Your task to perform on an android device: add a contact Image 0: 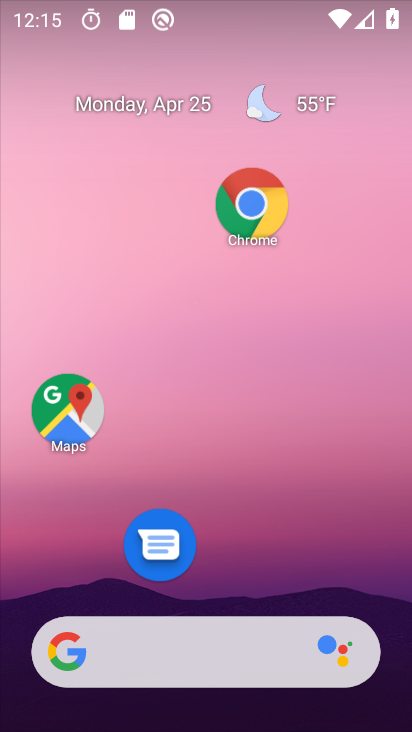
Step 0: drag from (291, 659) to (393, 260)
Your task to perform on an android device: add a contact Image 1: 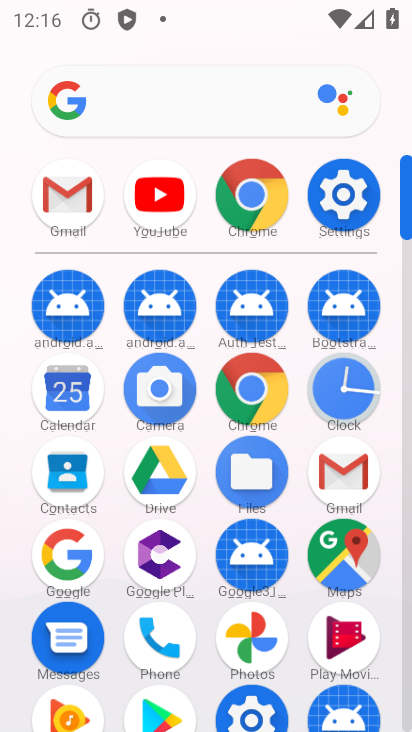
Step 1: click (159, 630)
Your task to perform on an android device: add a contact Image 2: 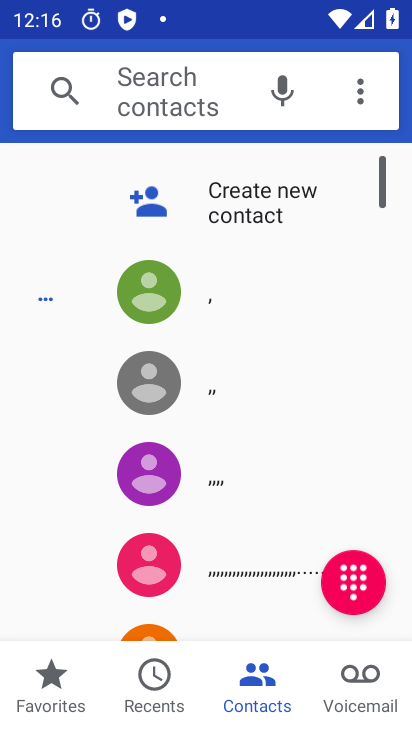
Step 2: click (246, 219)
Your task to perform on an android device: add a contact Image 3: 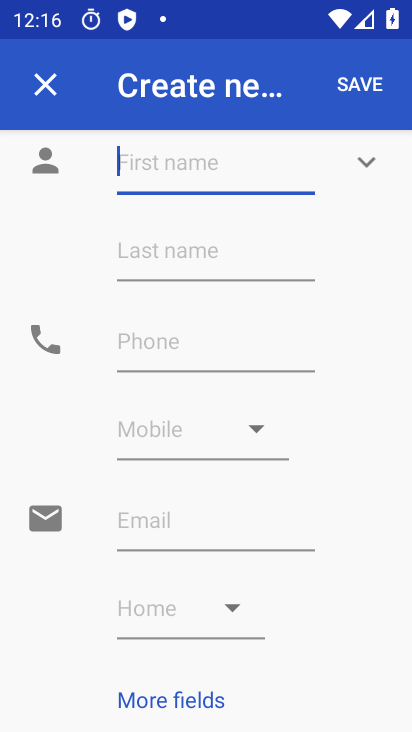
Step 3: click (203, 155)
Your task to perform on an android device: add a contact Image 4: 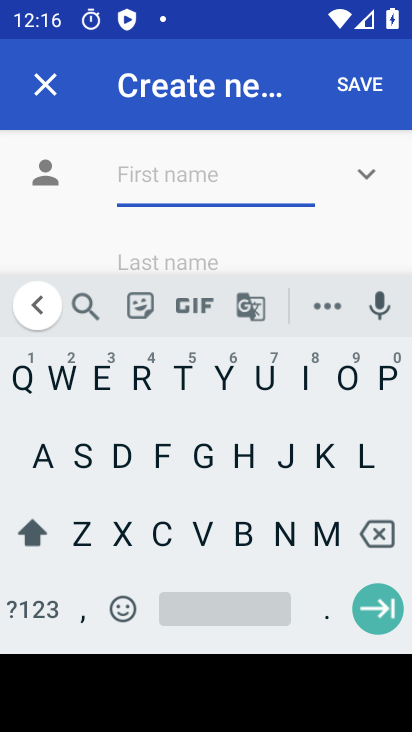
Step 4: click (120, 536)
Your task to perform on an android device: add a contact Image 5: 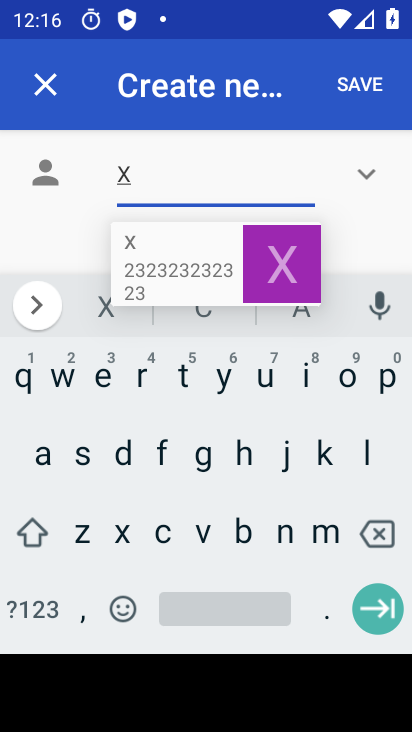
Step 5: click (102, 380)
Your task to perform on an android device: add a contact Image 6: 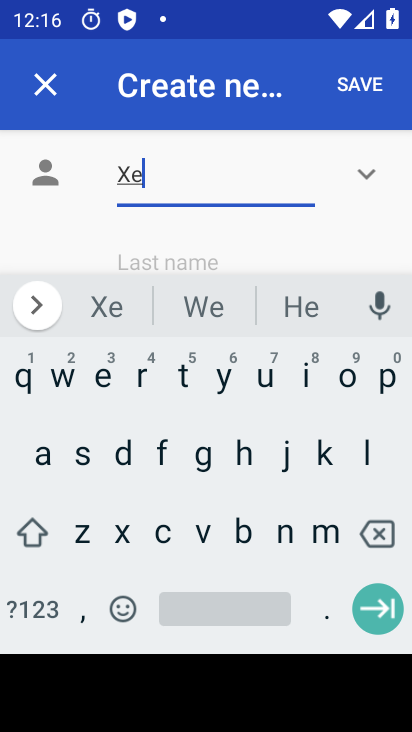
Step 6: drag from (187, 243) to (196, 149)
Your task to perform on an android device: add a contact Image 7: 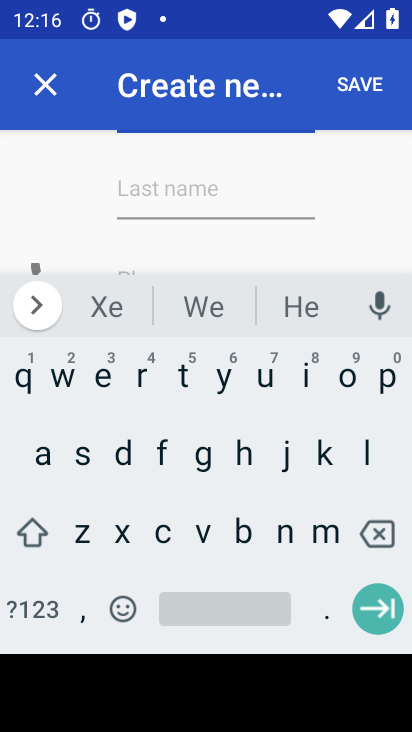
Step 7: click (145, 259)
Your task to perform on an android device: add a contact Image 8: 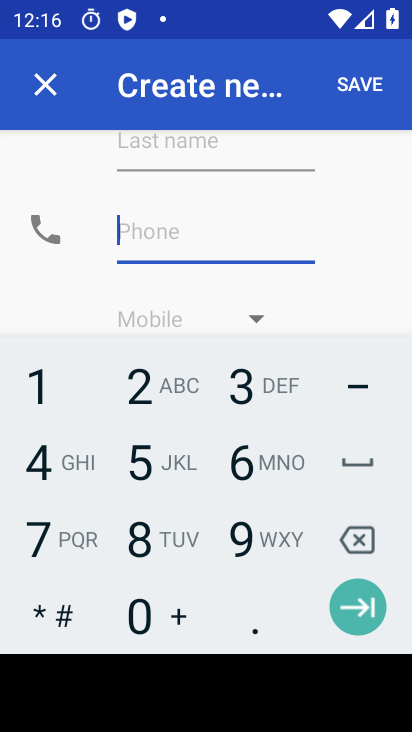
Step 8: click (235, 538)
Your task to perform on an android device: add a contact Image 9: 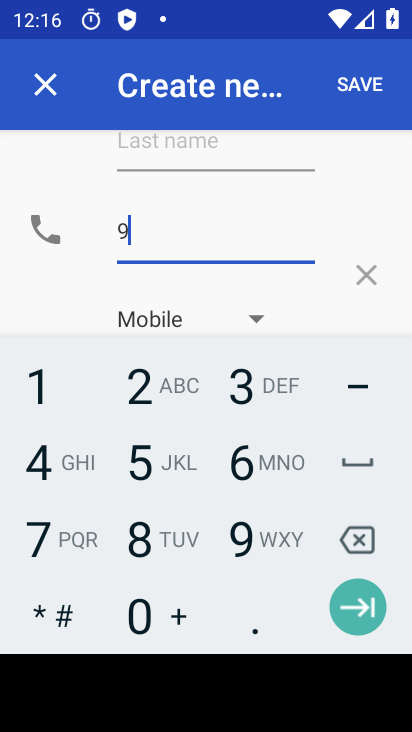
Step 9: click (145, 478)
Your task to perform on an android device: add a contact Image 10: 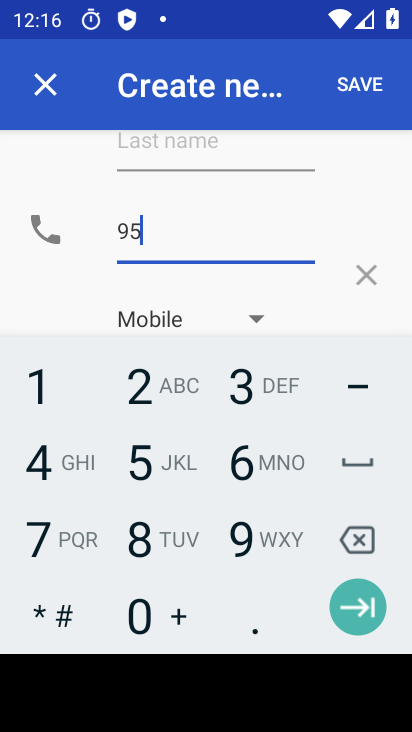
Step 10: click (35, 382)
Your task to perform on an android device: add a contact Image 11: 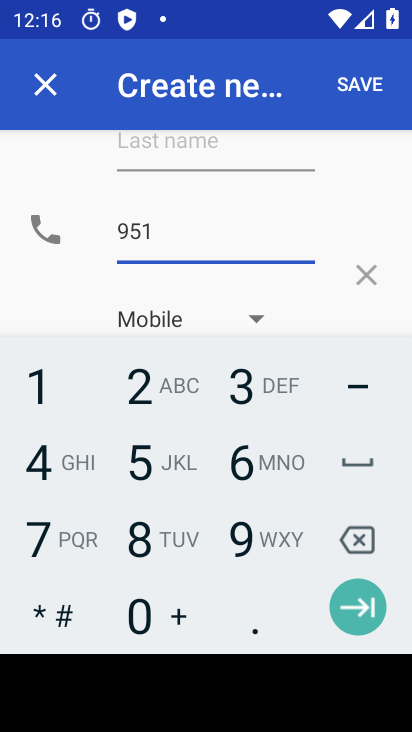
Step 11: click (149, 381)
Your task to perform on an android device: add a contact Image 12: 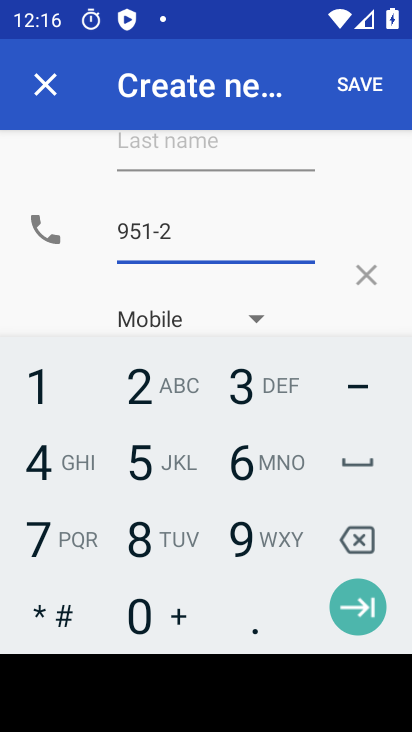
Step 12: click (253, 398)
Your task to perform on an android device: add a contact Image 13: 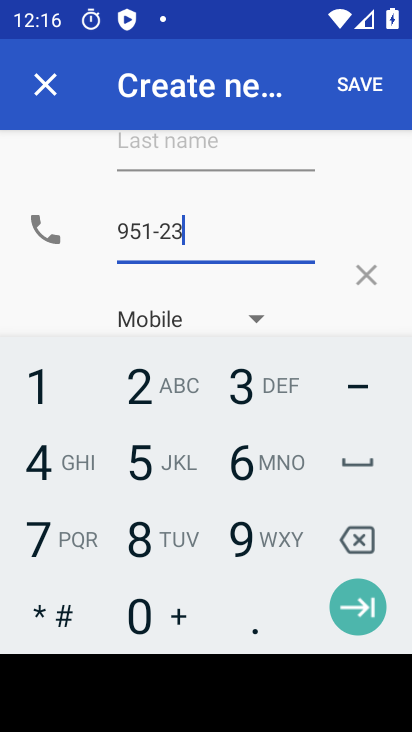
Step 13: click (249, 482)
Your task to perform on an android device: add a contact Image 14: 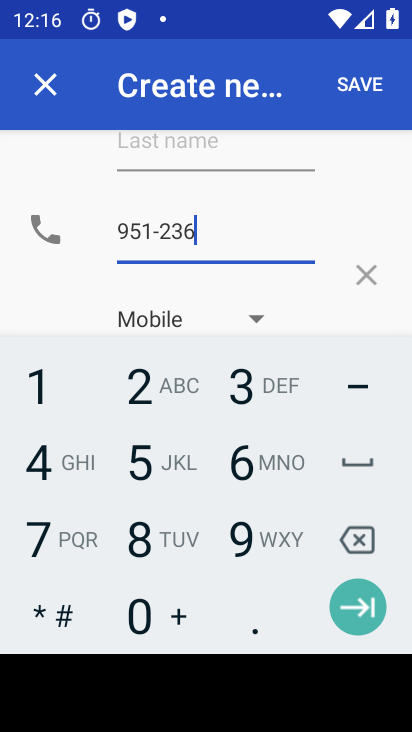
Step 14: click (157, 460)
Your task to perform on an android device: add a contact Image 15: 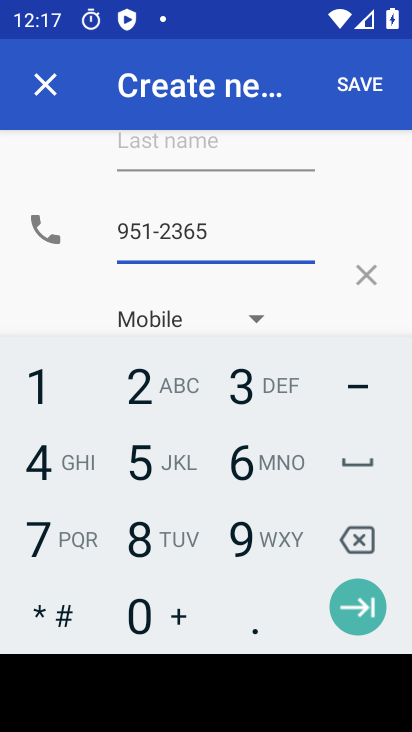
Step 15: click (147, 545)
Your task to perform on an android device: add a contact Image 16: 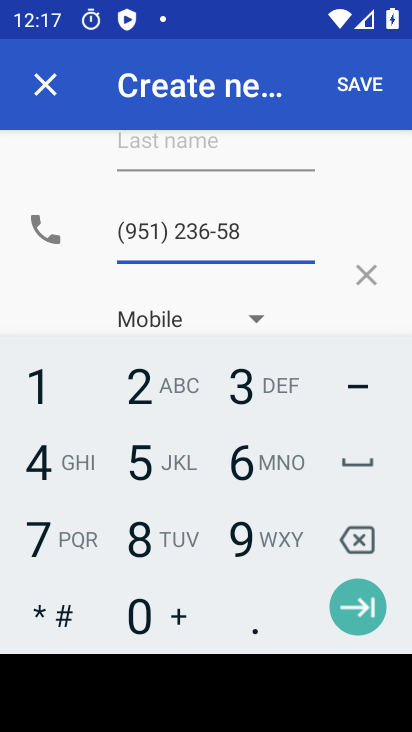
Step 16: click (236, 532)
Your task to perform on an android device: add a contact Image 17: 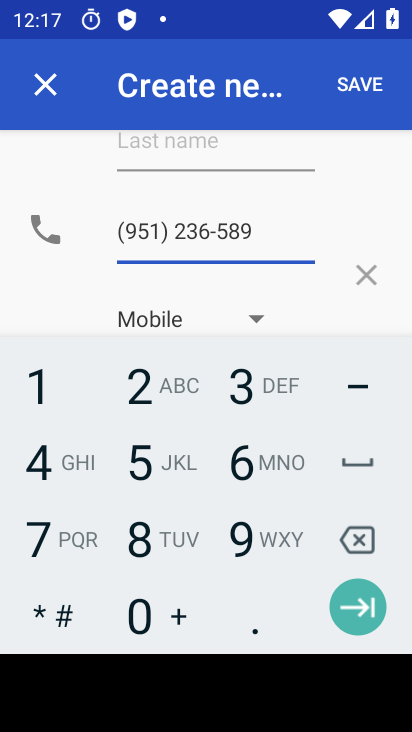
Step 17: click (128, 457)
Your task to perform on an android device: add a contact Image 18: 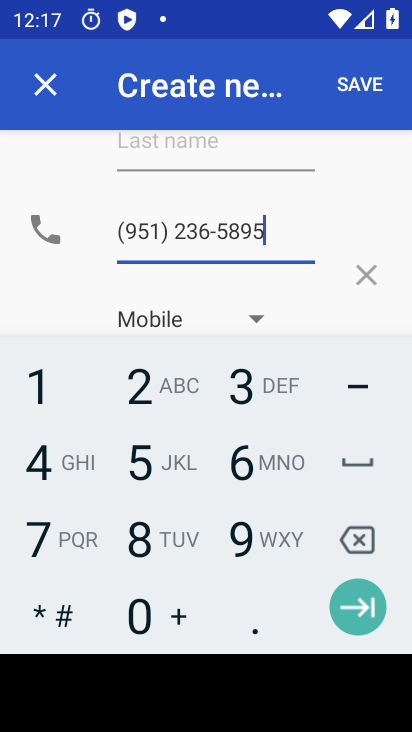
Step 18: click (369, 77)
Your task to perform on an android device: add a contact Image 19: 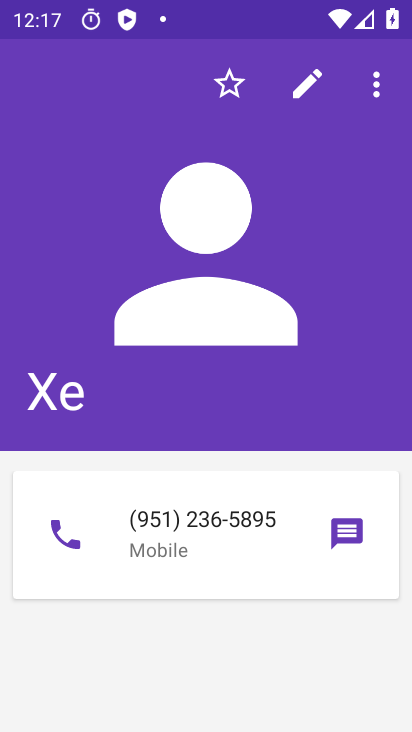
Step 19: task complete